Your task to perform on an android device: What's the weather like in Mumbai? Image 0: 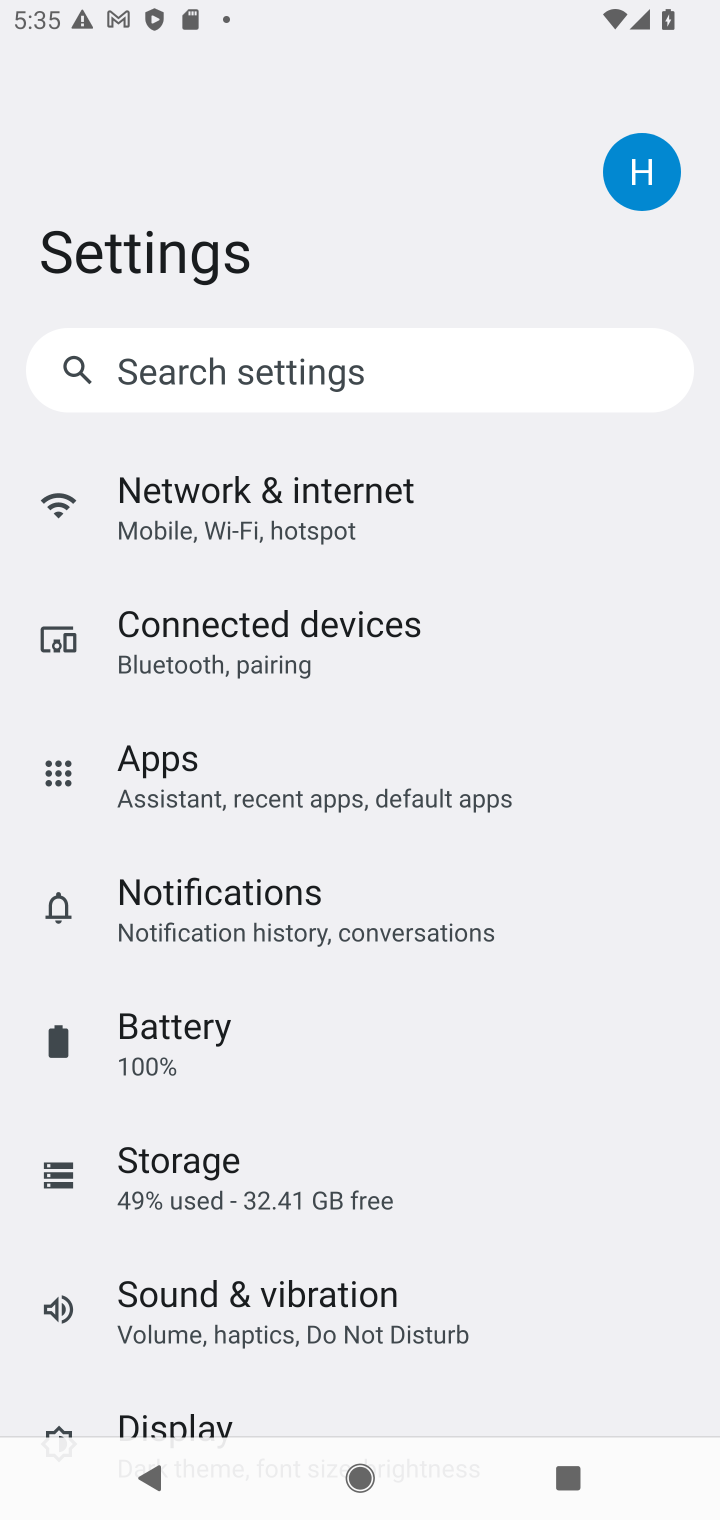
Step 0: press home button
Your task to perform on an android device: What's the weather like in Mumbai? Image 1: 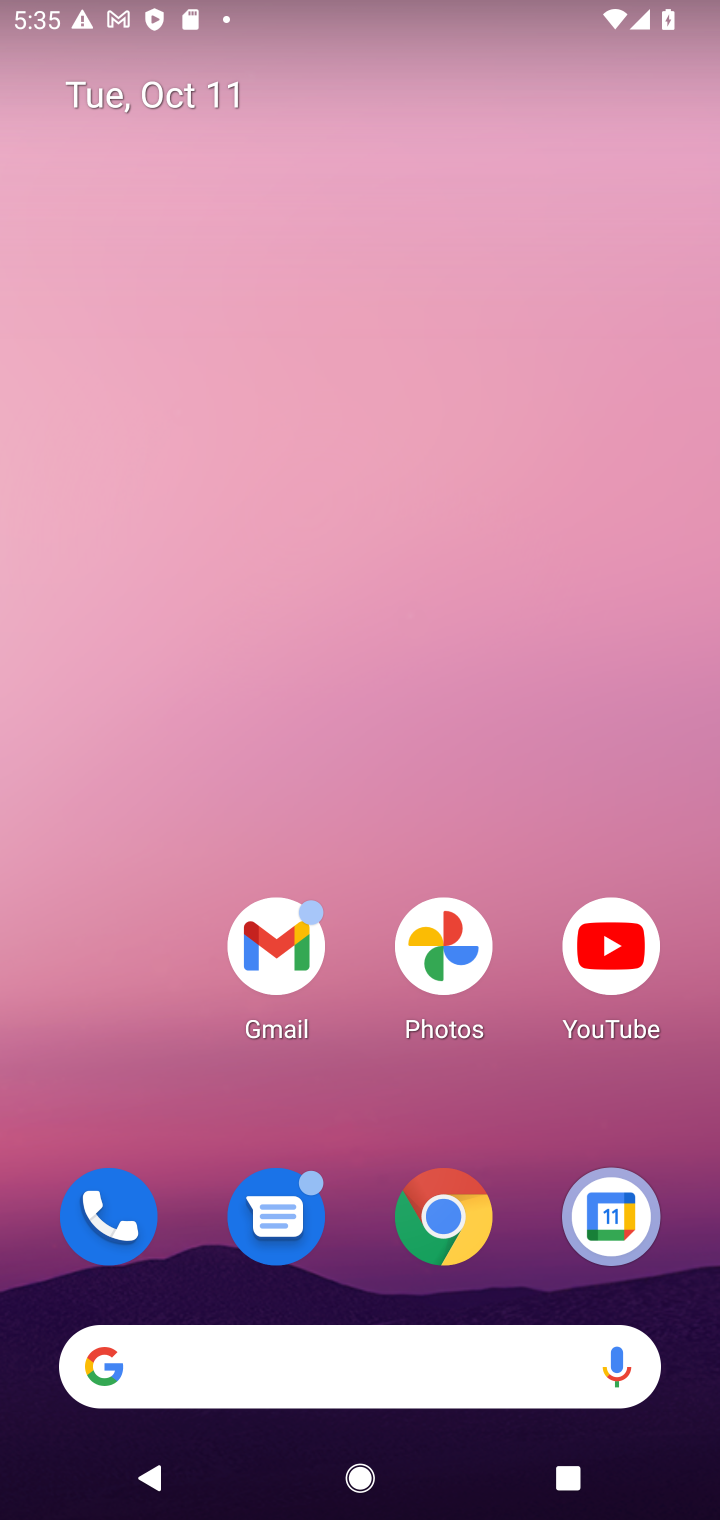
Step 1: click (440, 1222)
Your task to perform on an android device: What's the weather like in Mumbai? Image 2: 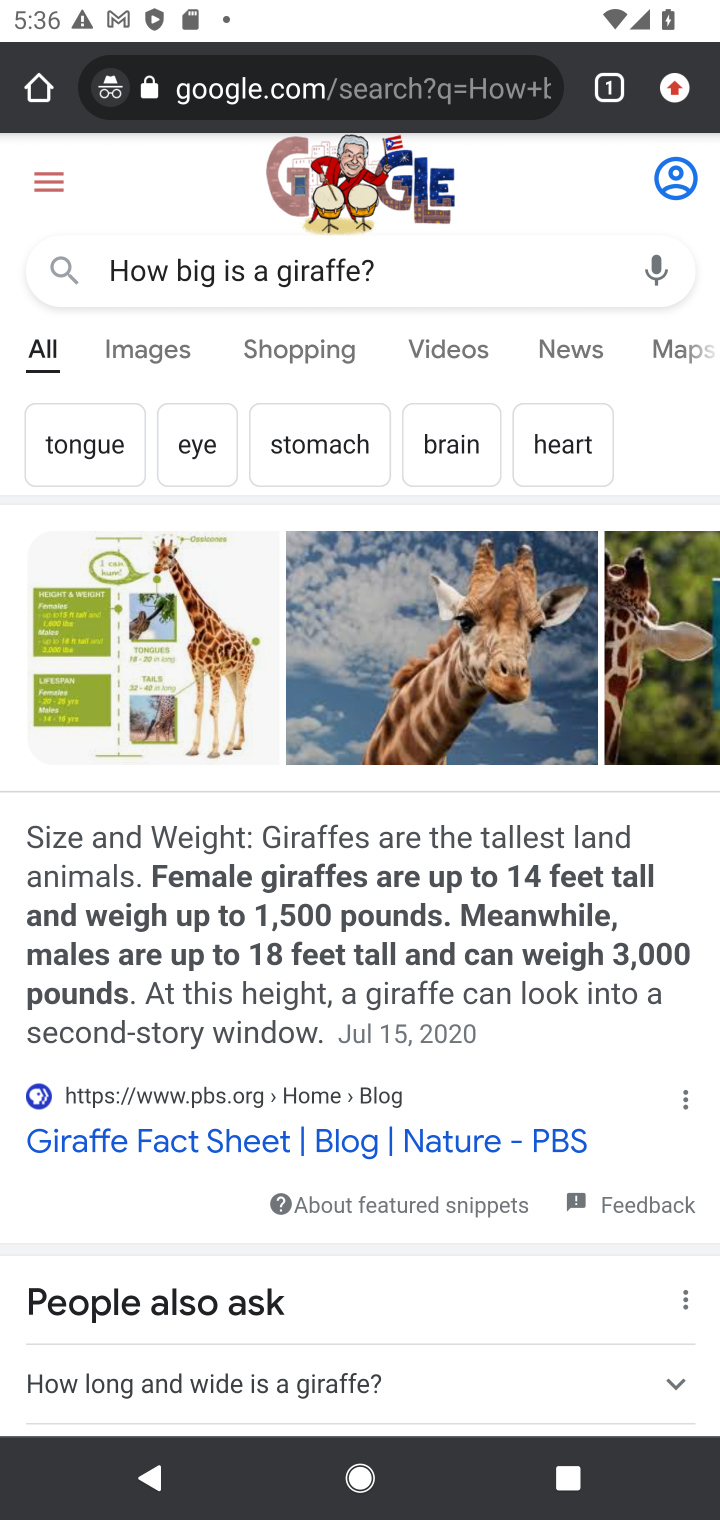
Step 2: click (326, 92)
Your task to perform on an android device: What's the weather like in Mumbai? Image 3: 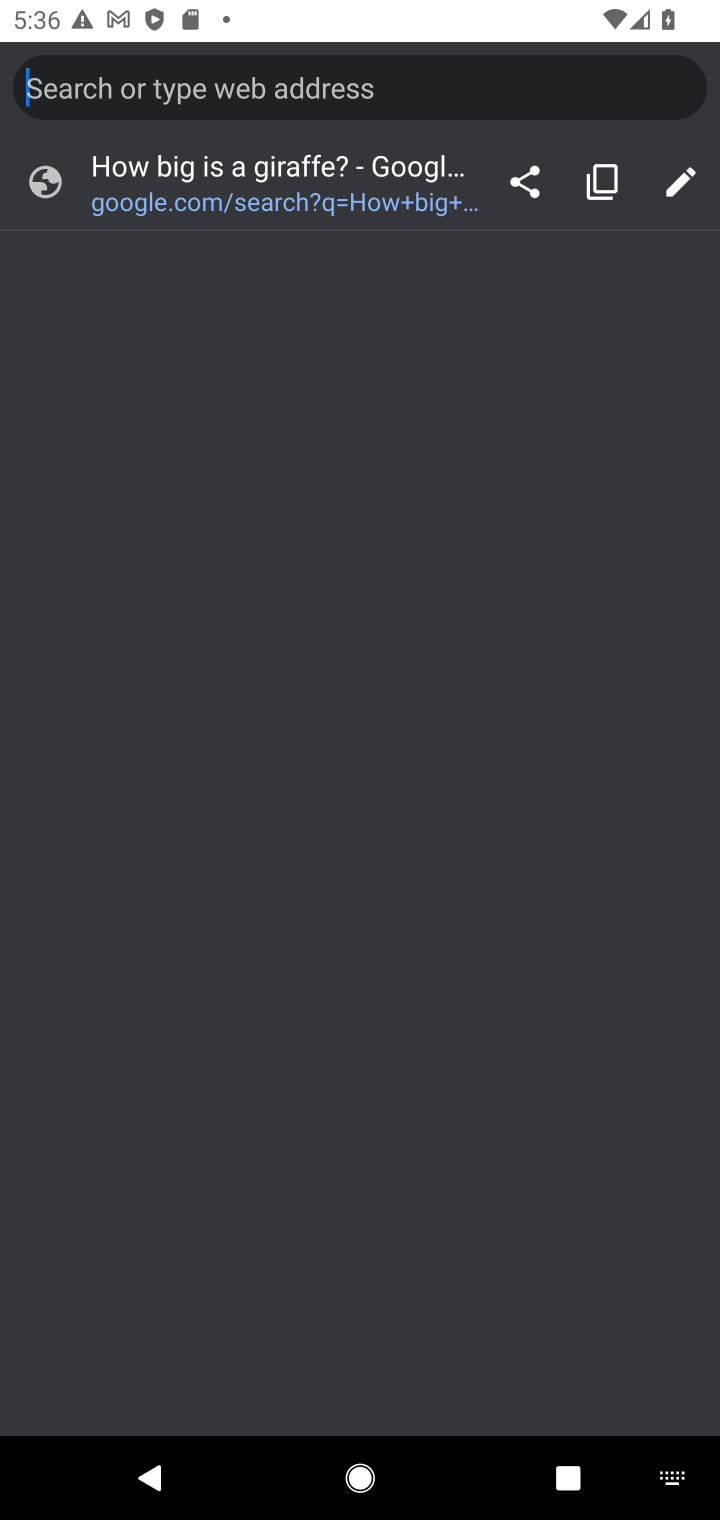
Step 3: type "What's the weather like in Mumbai?"
Your task to perform on an android device: What's the weather like in Mumbai? Image 4: 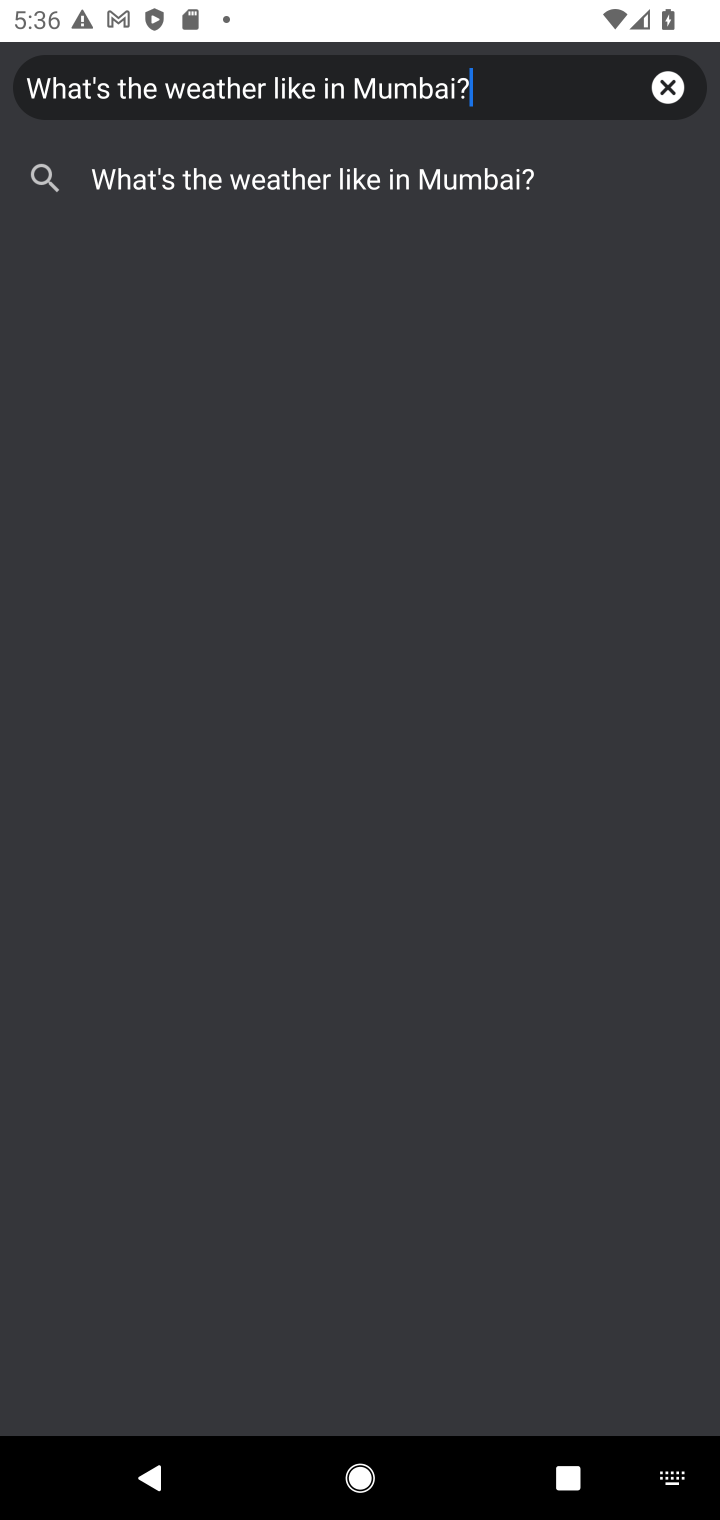
Step 4: click (288, 181)
Your task to perform on an android device: What's the weather like in Mumbai? Image 5: 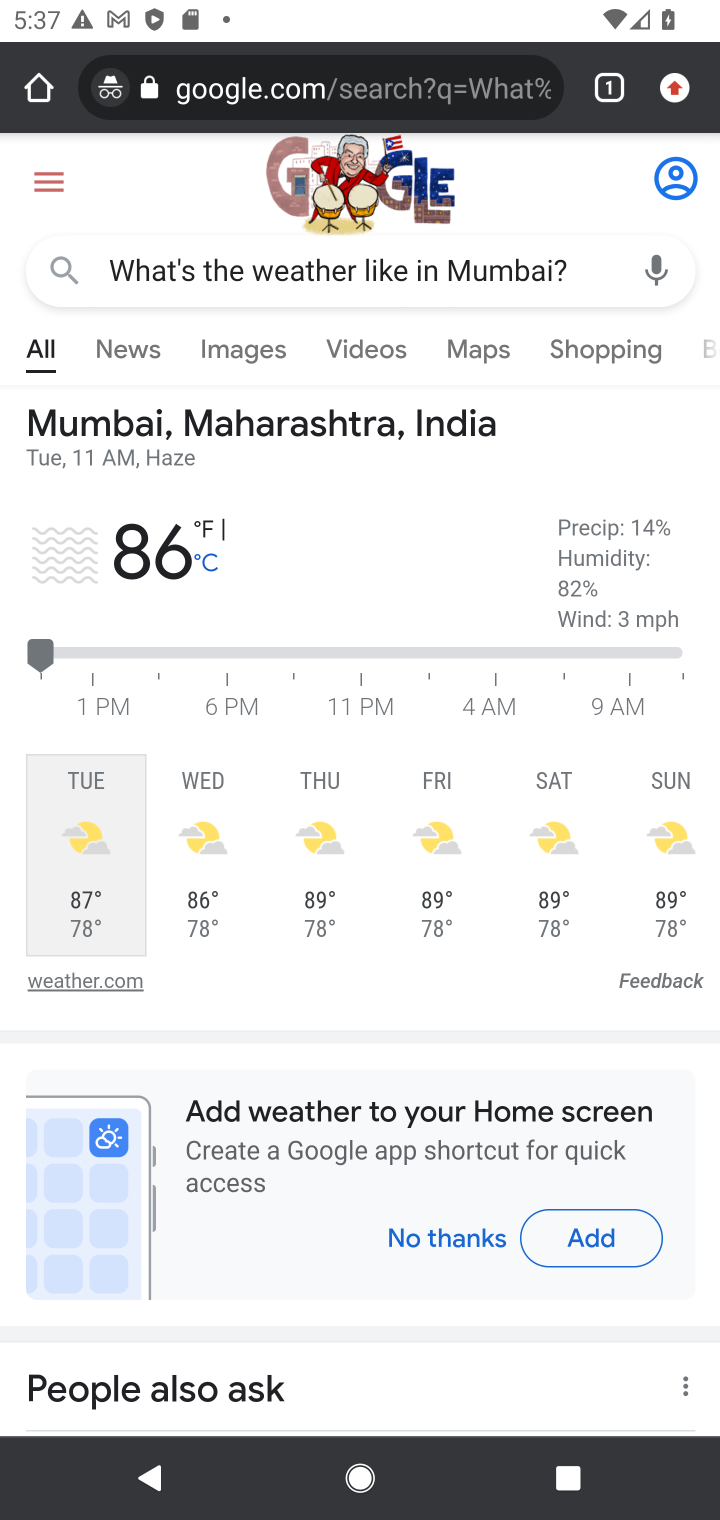
Step 5: task complete